Your task to perform on an android device: read, delete, or share a saved page in the chrome app Image 0: 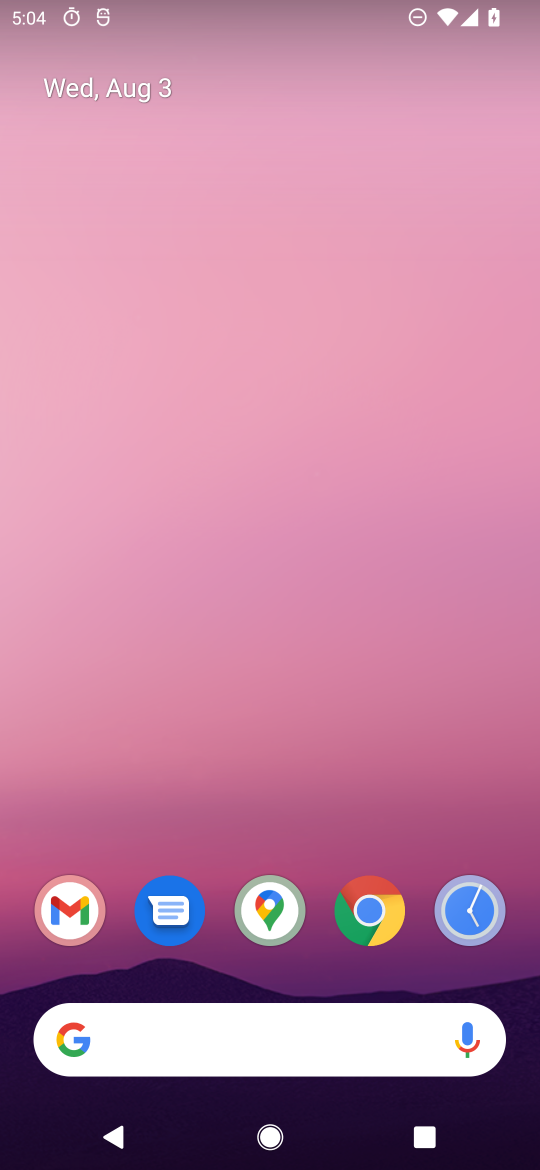
Step 0: click (371, 911)
Your task to perform on an android device: read, delete, or share a saved page in the chrome app Image 1: 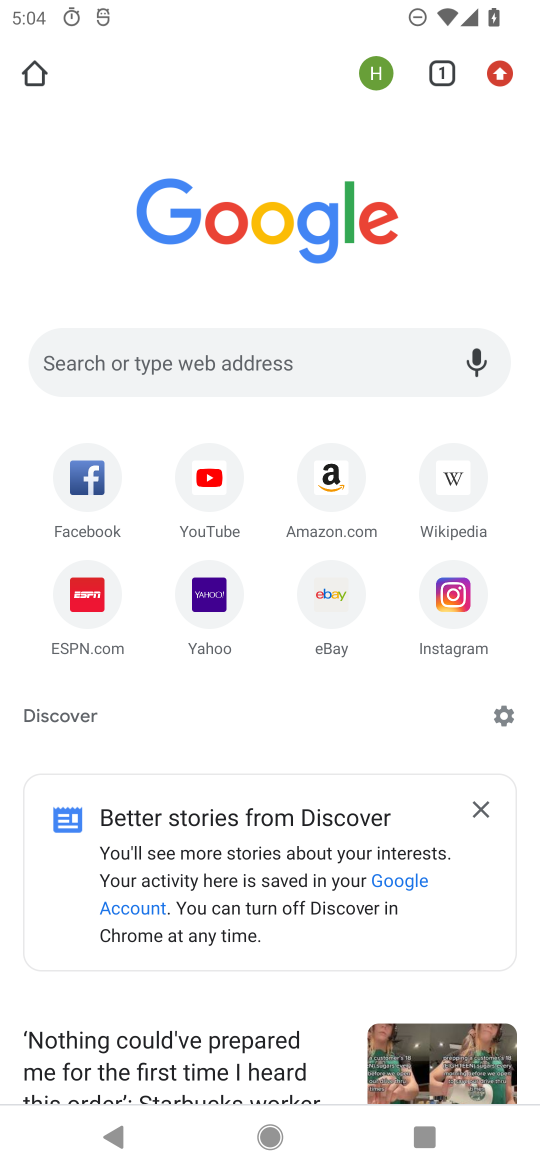
Step 1: click (495, 81)
Your task to perform on an android device: read, delete, or share a saved page in the chrome app Image 2: 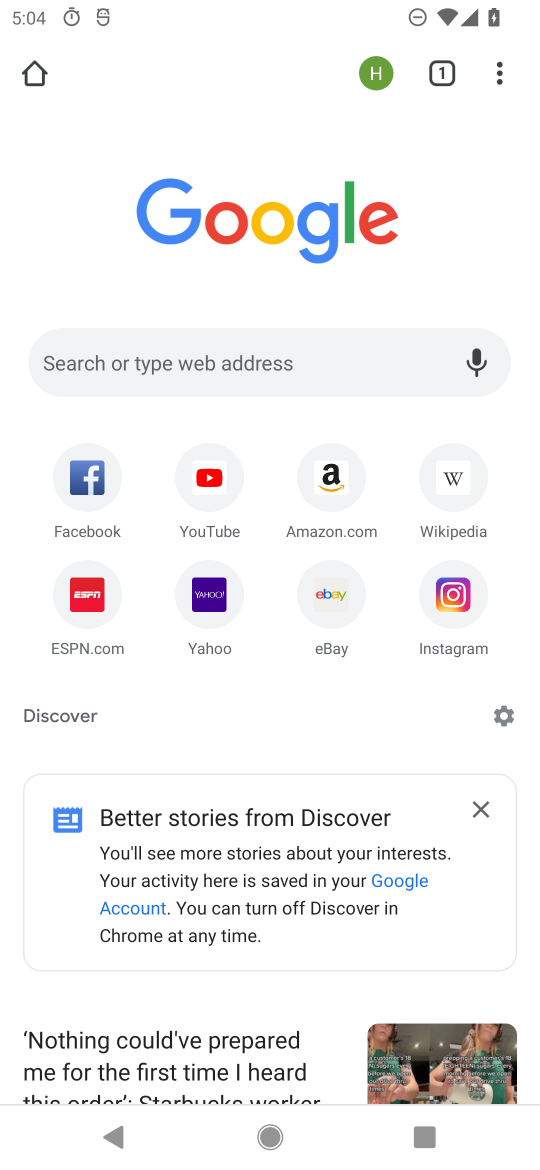
Step 2: click (489, 70)
Your task to perform on an android device: read, delete, or share a saved page in the chrome app Image 3: 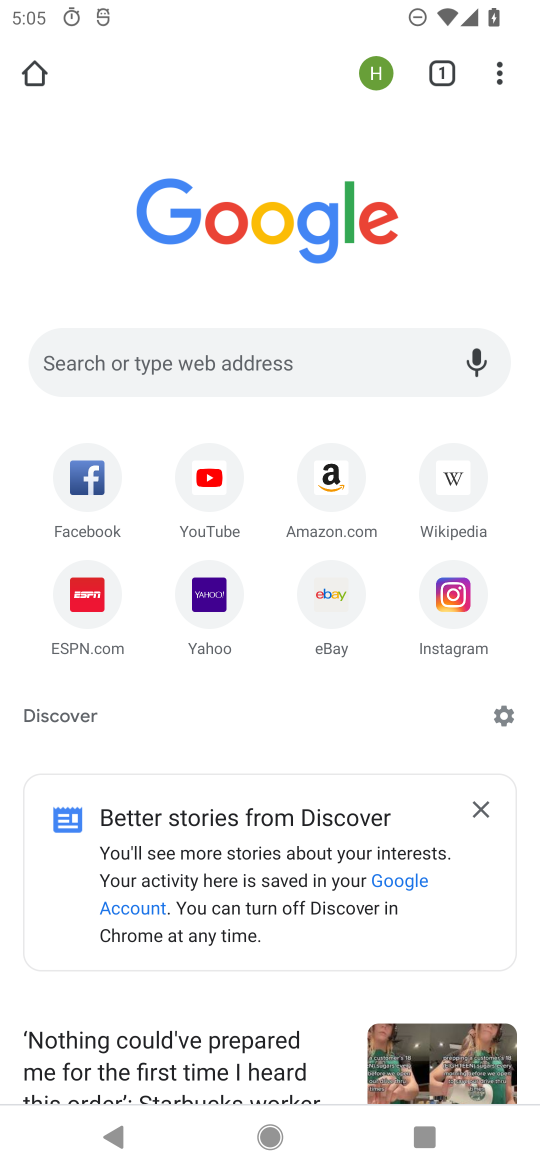
Step 3: click (497, 72)
Your task to perform on an android device: read, delete, or share a saved page in the chrome app Image 4: 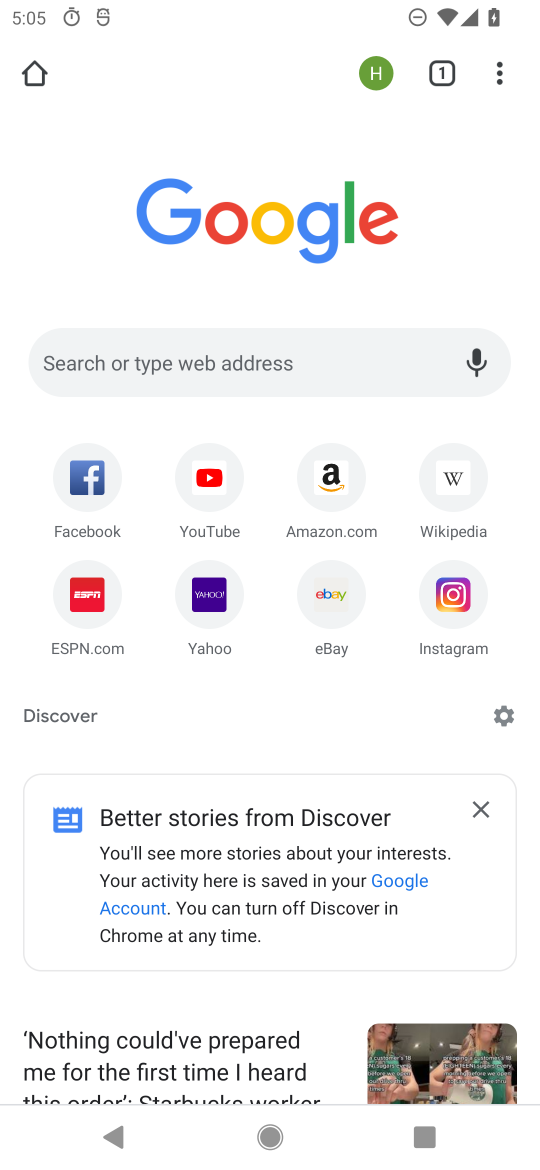
Step 4: task complete